Your task to perform on an android device: show emergency info Image 0: 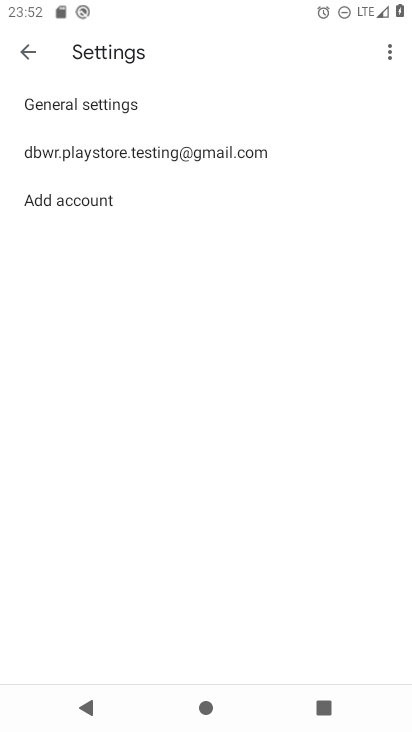
Step 0: press home button
Your task to perform on an android device: show emergency info Image 1: 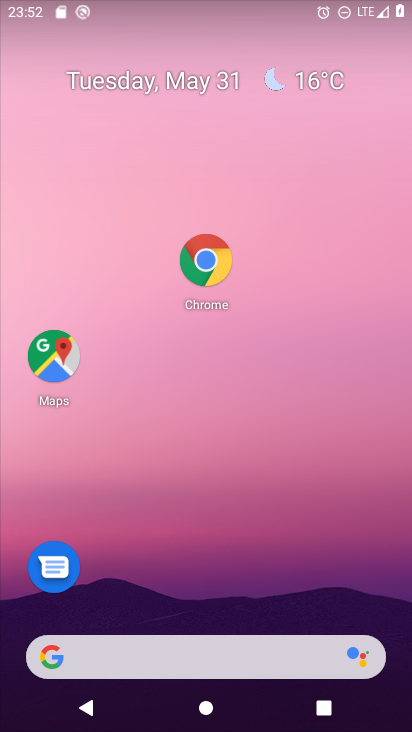
Step 1: drag from (229, 581) to (269, 187)
Your task to perform on an android device: show emergency info Image 2: 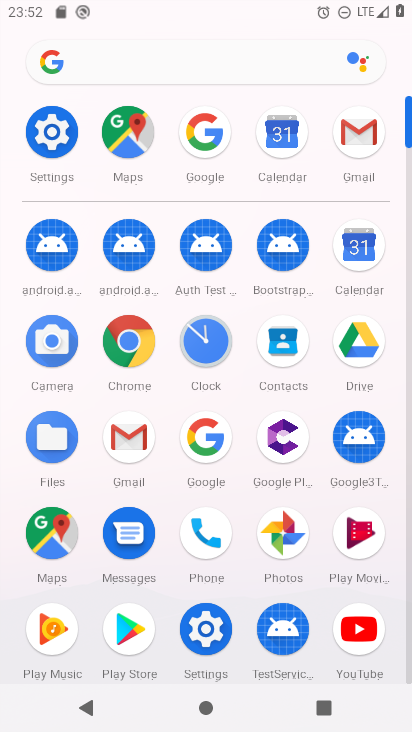
Step 2: click (49, 142)
Your task to perform on an android device: show emergency info Image 3: 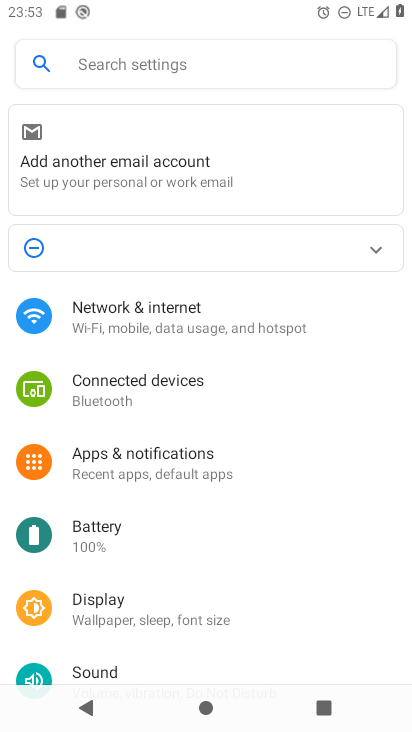
Step 3: drag from (142, 666) to (194, 194)
Your task to perform on an android device: show emergency info Image 4: 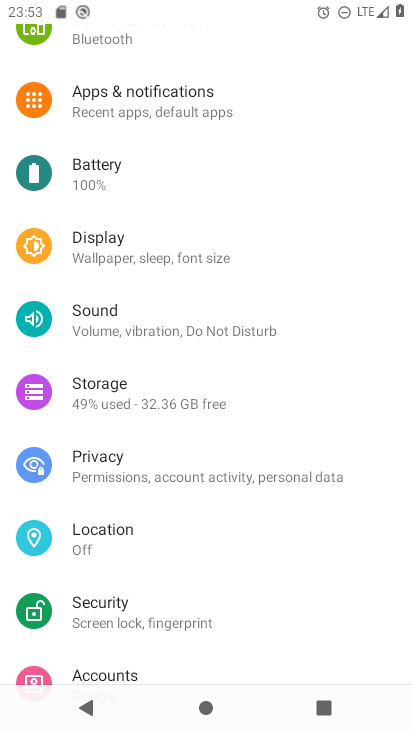
Step 4: drag from (126, 652) to (128, 315)
Your task to perform on an android device: show emergency info Image 5: 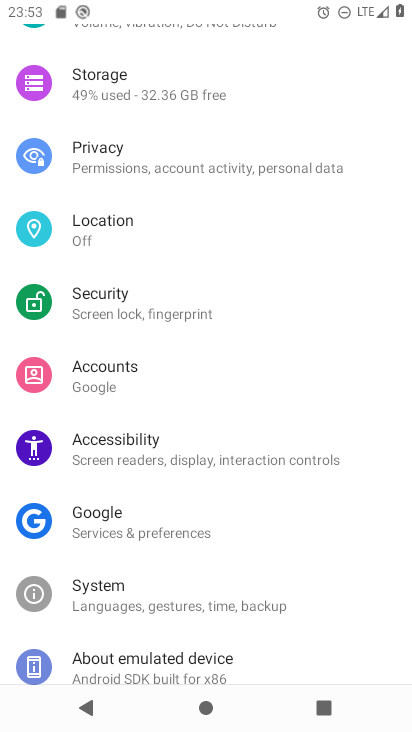
Step 5: click (90, 667)
Your task to perform on an android device: show emergency info Image 6: 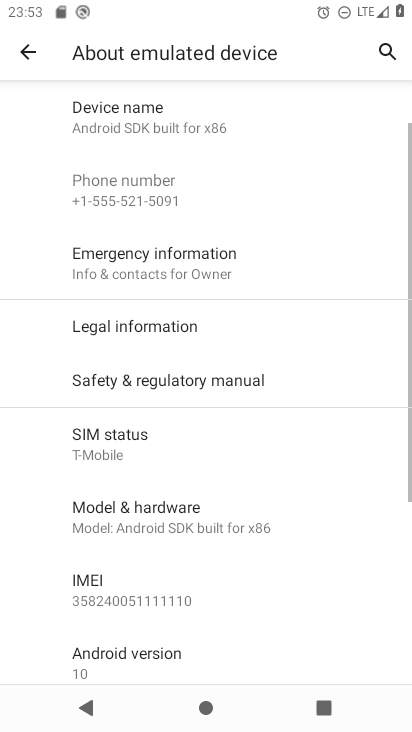
Step 6: drag from (136, 675) to (144, 350)
Your task to perform on an android device: show emergency info Image 7: 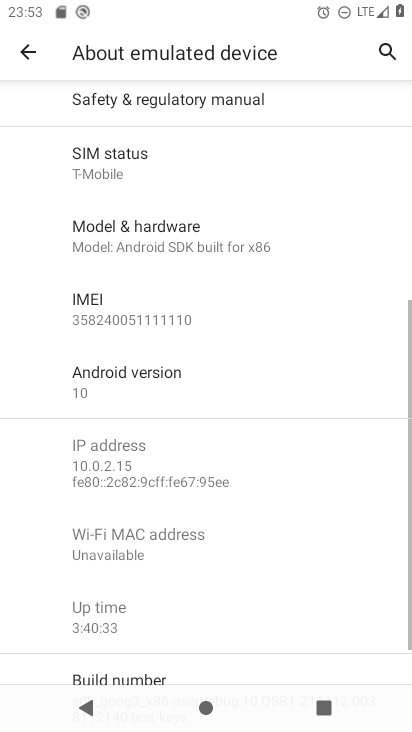
Step 7: drag from (141, 642) to (185, 366)
Your task to perform on an android device: show emergency info Image 8: 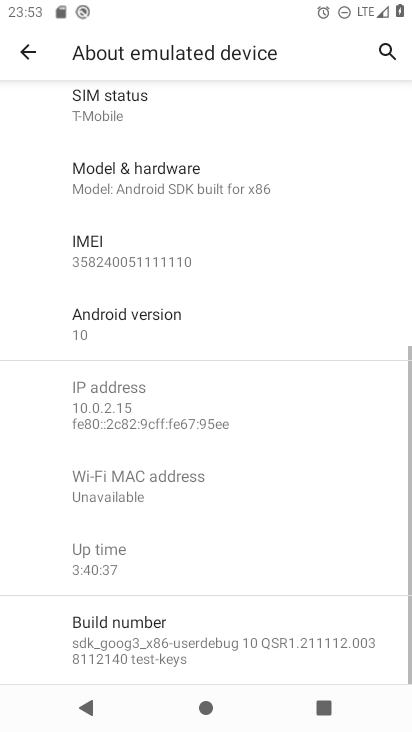
Step 8: drag from (204, 180) to (204, 632)
Your task to perform on an android device: show emergency info Image 9: 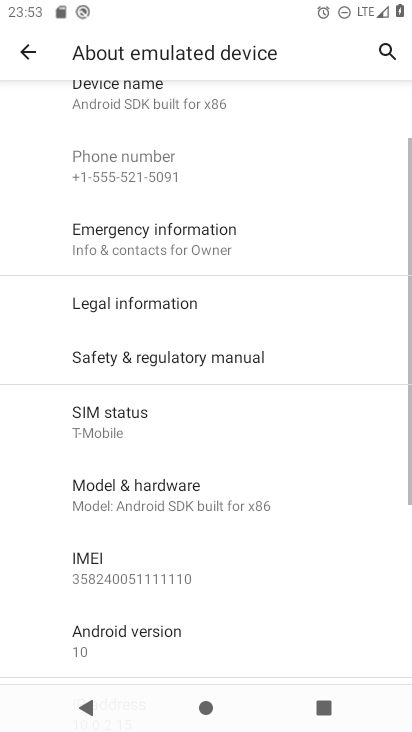
Step 9: drag from (208, 138) to (234, 500)
Your task to perform on an android device: show emergency info Image 10: 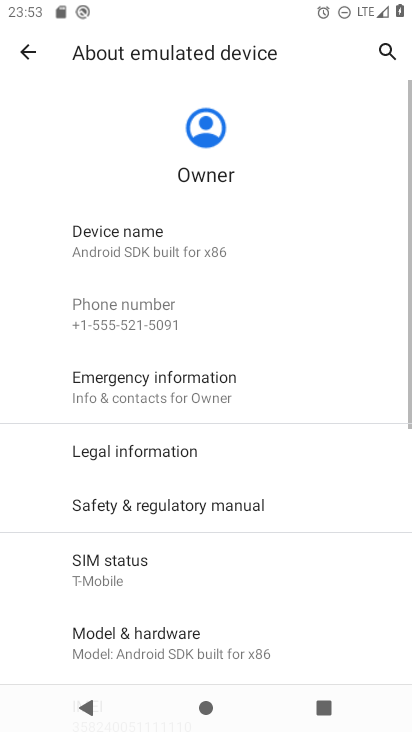
Step 10: click (142, 390)
Your task to perform on an android device: show emergency info Image 11: 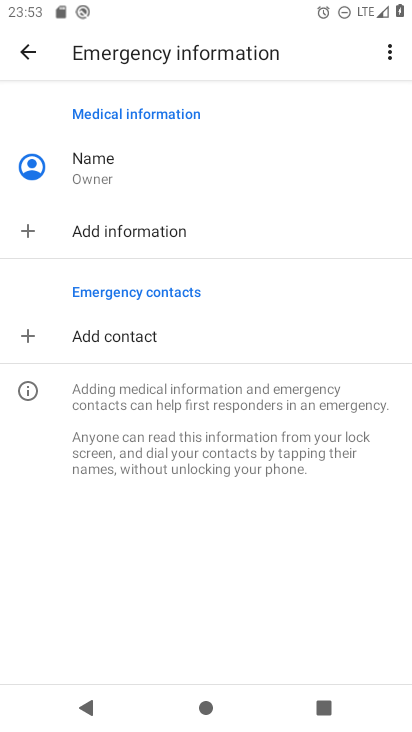
Step 11: task complete